Your task to perform on an android device: Go to Reddit.com Image 0: 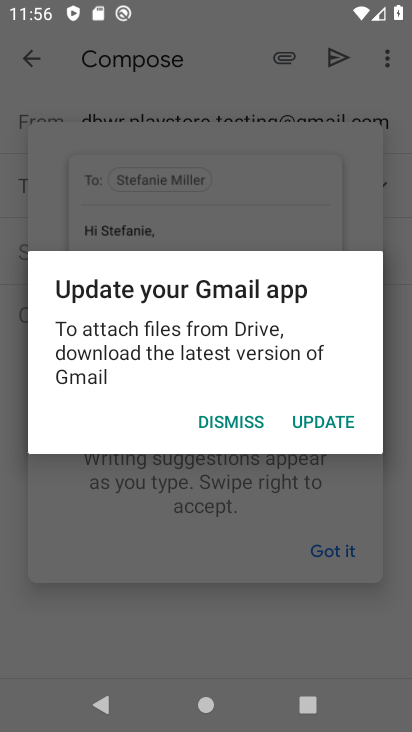
Step 0: press home button
Your task to perform on an android device: Go to Reddit.com Image 1: 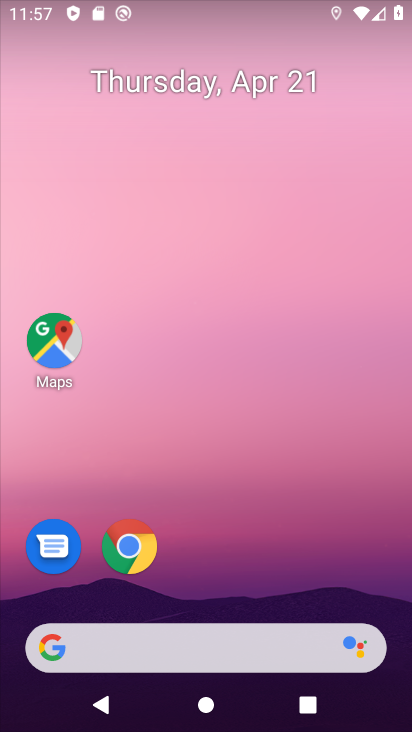
Step 1: click (125, 552)
Your task to perform on an android device: Go to Reddit.com Image 2: 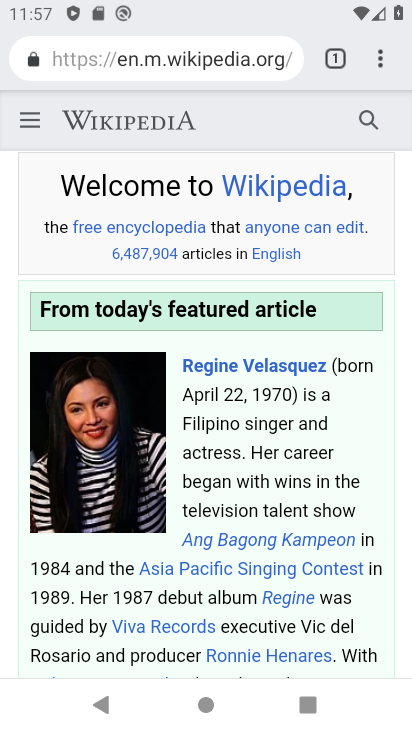
Step 2: drag from (380, 57) to (164, 117)
Your task to perform on an android device: Go to Reddit.com Image 3: 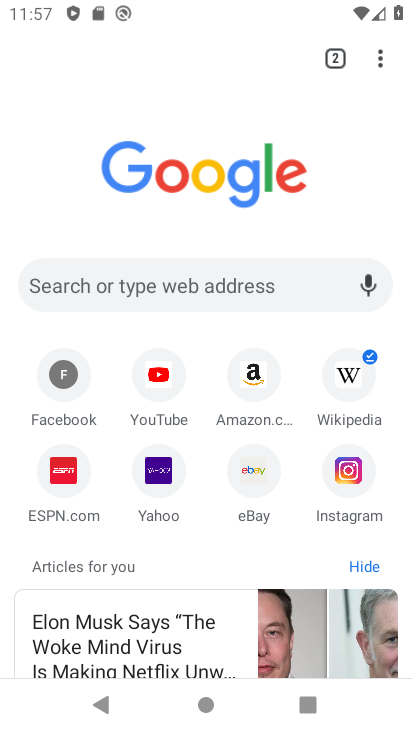
Step 3: click (195, 285)
Your task to perform on an android device: Go to Reddit.com Image 4: 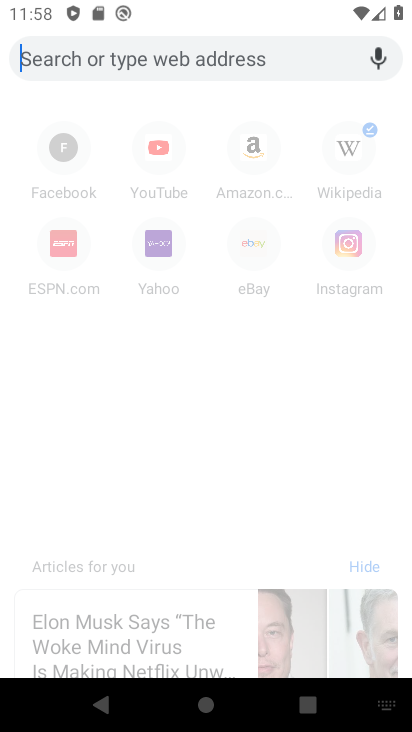
Step 4: type "Reddit.com"
Your task to perform on an android device: Go to Reddit.com Image 5: 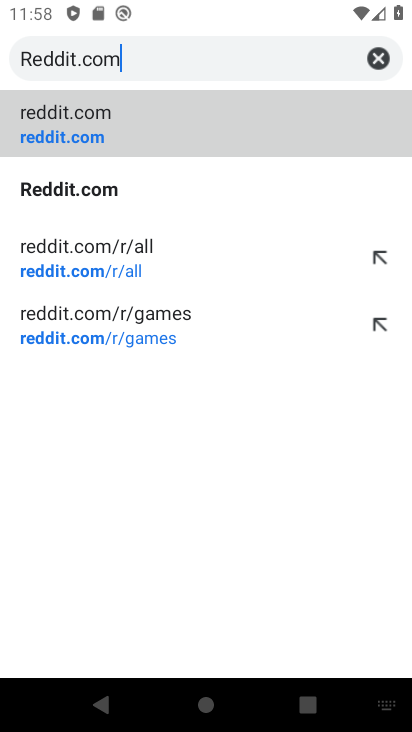
Step 5: click (96, 117)
Your task to perform on an android device: Go to Reddit.com Image 6: 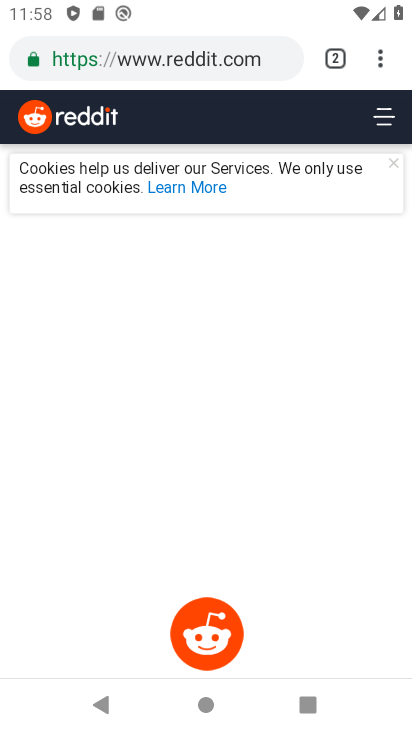
Step 6: task complete